Your task to perform on an android device: Open Google Maps and go to "Timeline" Image 0: 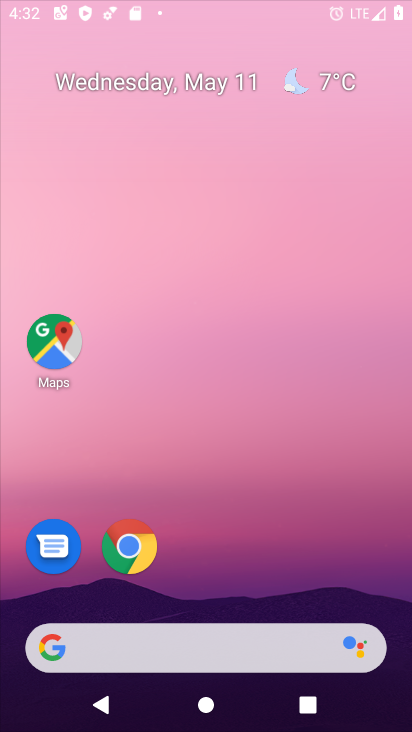
Step 0: drag from (337, 24) to (325, 81)
Your task to perform on an android device: Open Google Maps and go to "Timeline" Image 1: 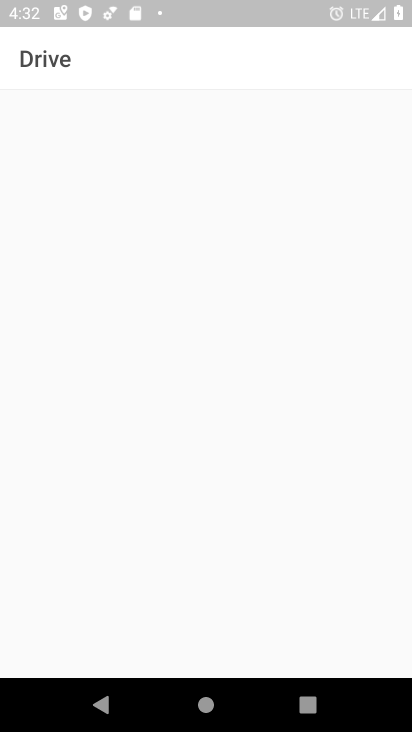
Step 1: press home button
Your task to perform on an android device: Open Google Maps and go to "Timeline" Image 2: 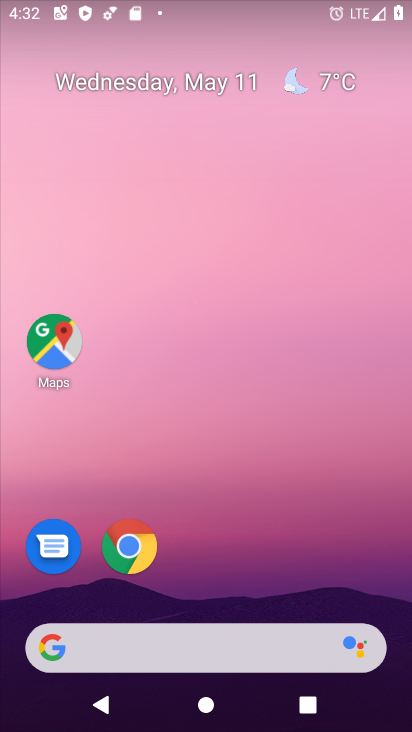
Step 2: drag from (262, 666) to (339, 20)
Your task to perform on an android device: Open Google Maps and go to "Timeline" Image 3: 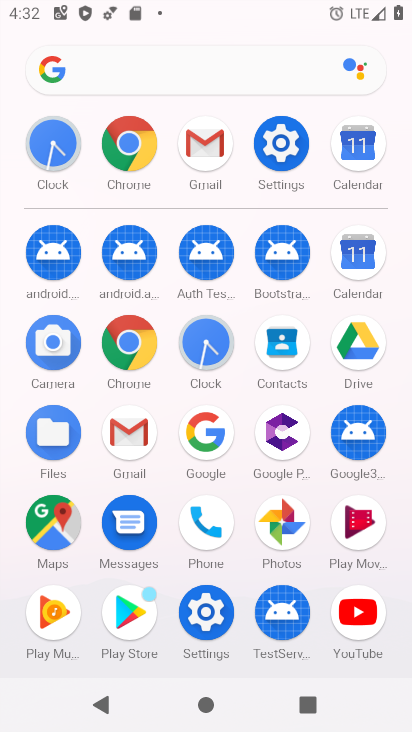
Step 3: click (37, 516)
Your task to perform on an android device: Open Google Maps and go to "Timeline" Image 4: 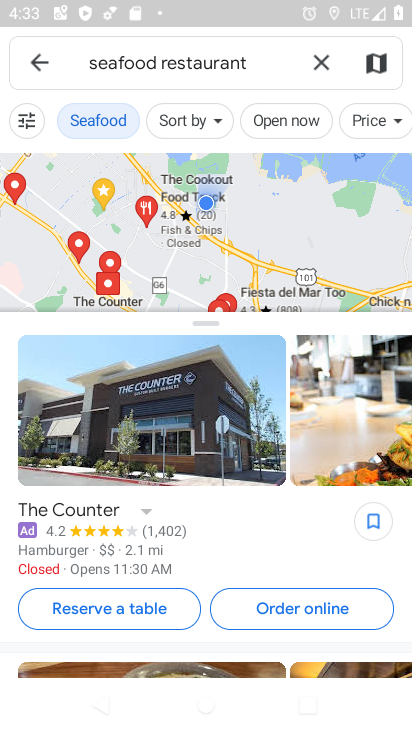
Step 4: press back button
Your task to perform on an android device: Open Google Maps and go to "Timeline" Image 5: 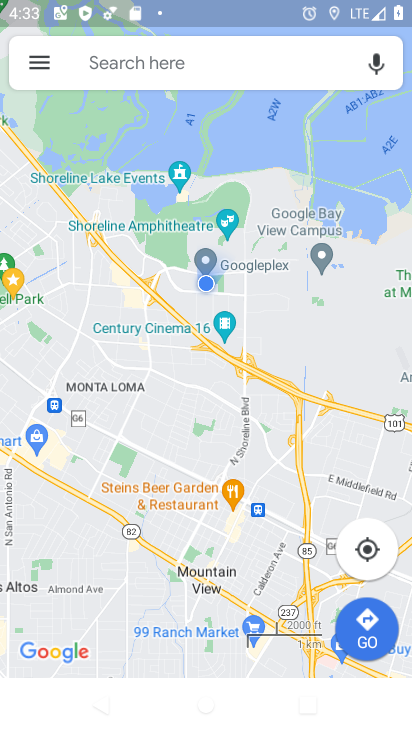
Step 5: click (28, 70)
Your task to perform on an android device: Open Google Maps and go to "Timeline" Image 6: 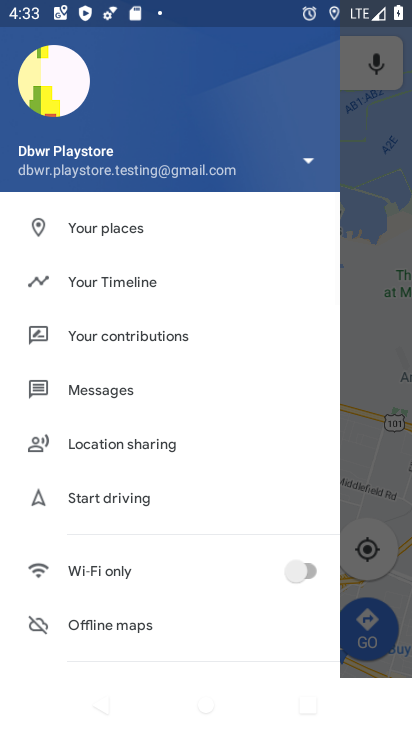
Step 6: click (131, 278)
Your task to perform on an android device: Open Google Maps and go to "Timeline" Image 7: 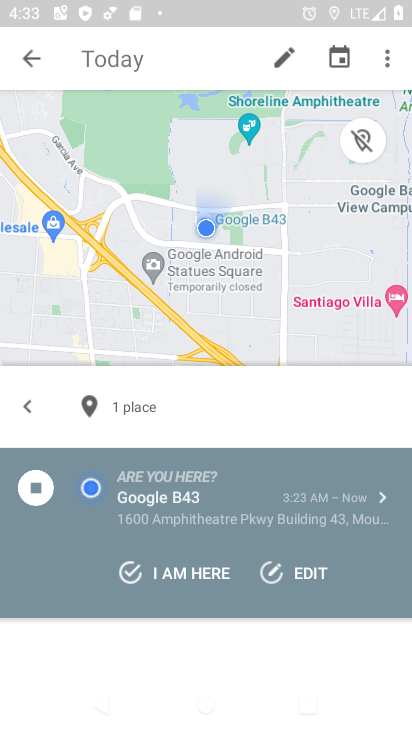
Step 7: task complete